Your task to perform on an android device: Open maps Image 0: 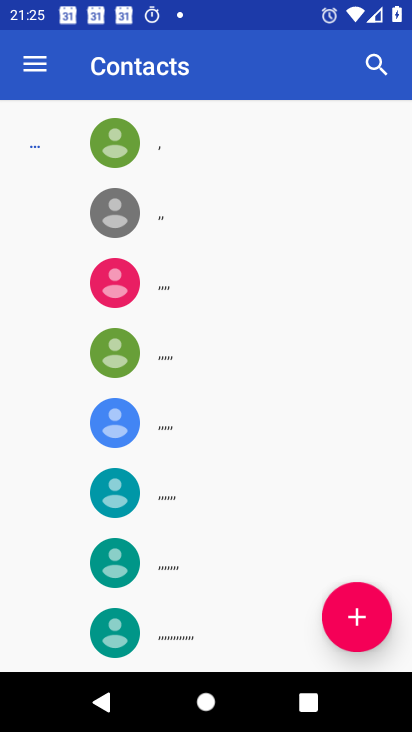
Step 0: press home button
Your task to perform on an android device: Open maps Image 1: 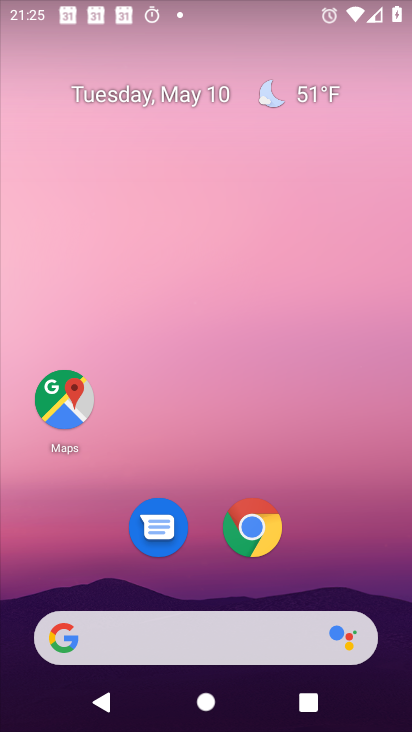
Step 1: click (24, 391)
Your task to perform on an android device: Open maps Image 2: 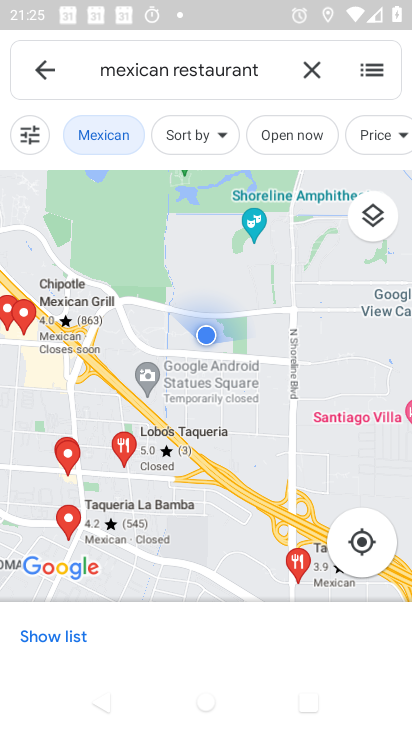
Step 2: task complete